Your task to perform on an android device: toggle airplane mode Image 0: 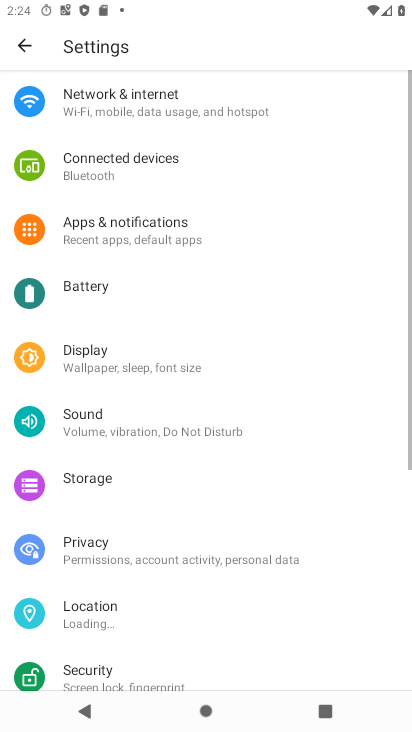
Step 0: click (117, 662)
Your task to perform on an android device: toggle airplane mode Image 1: 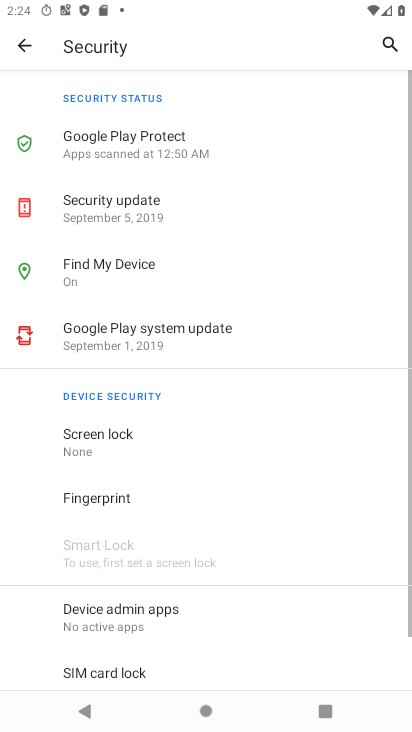
Step 1: press home button
Your task to perform on an android device: toggle airplane mode Image 2: 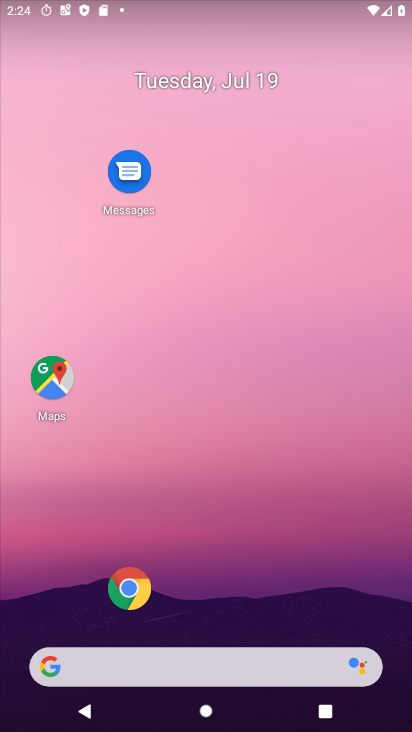
Step 2: drag from (81, 611) to (164, 282)
Your task to perform on an android device: toggle airplane mode Image 3: 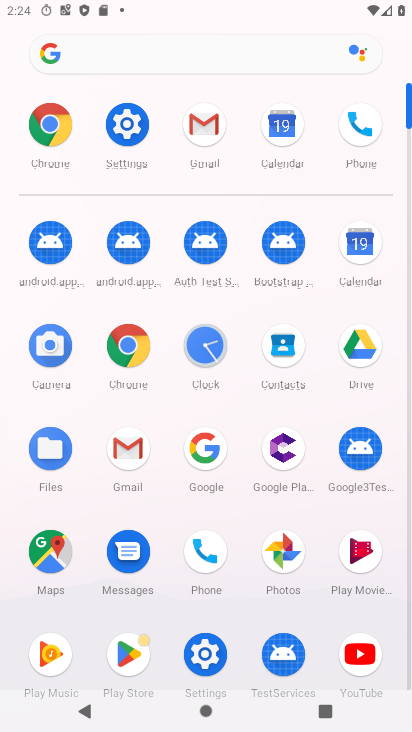
Step 3: click (183, 662)
Your task to perform on an android device: toggle airplane mode Image 4: 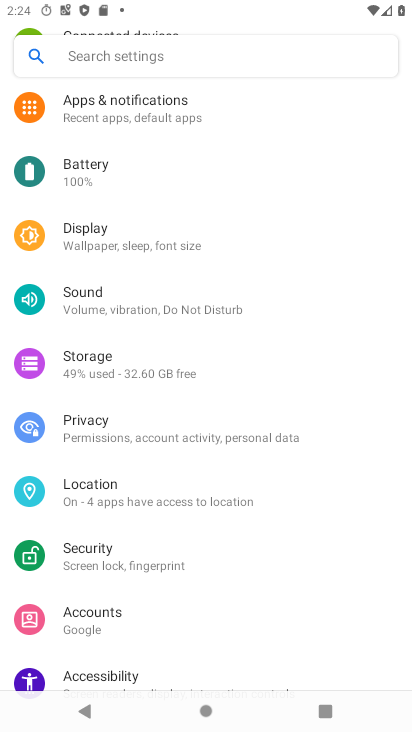
Step 4: drag from (190, 154) to (205, 542)
Your task to perform on an android device: toggle airplane mode Image 5: 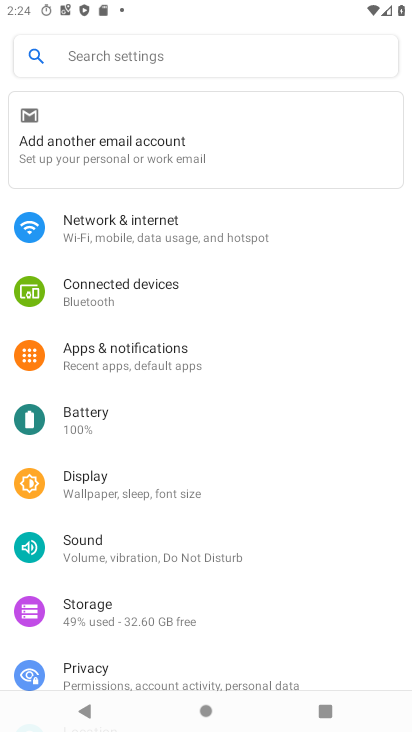
Step 5: click (120, 233)
Your task to perform on an android device: toggle airplane mode Image 6: 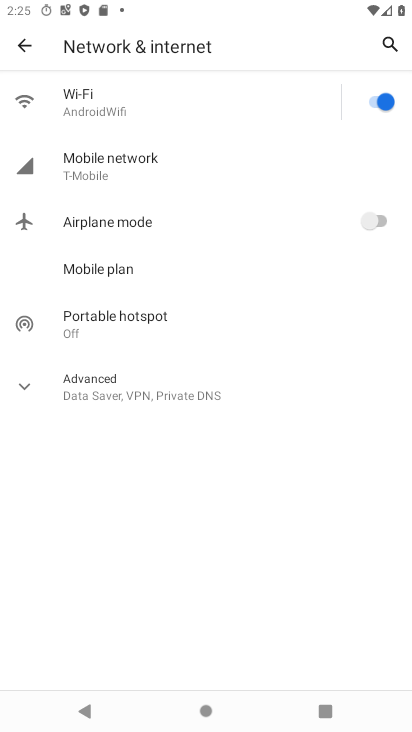
Step 6: click (369, 217)
Your task to perform on an android device: toggle airplane mode Image 7: 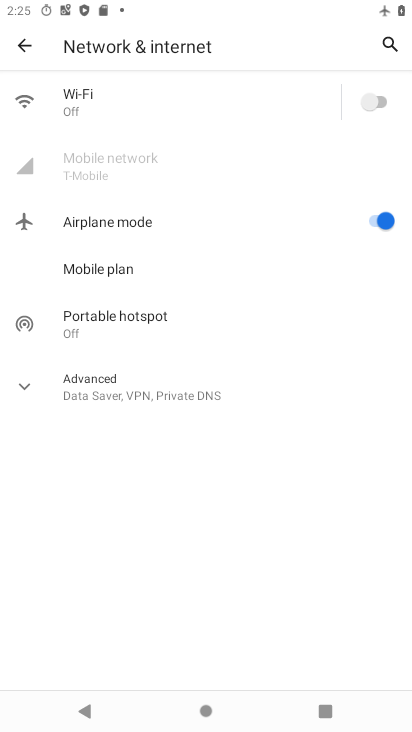
Step 7: task complete